Your task to perform on an android device: When is my next meeting? Image 0: 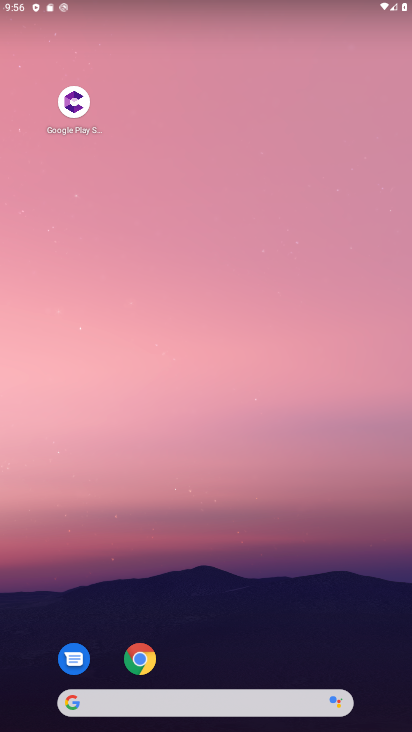
Step 0: drag from (276, 617) to (268, 278)
Your task to perform on an android device: When is my next meeting? Image 1: 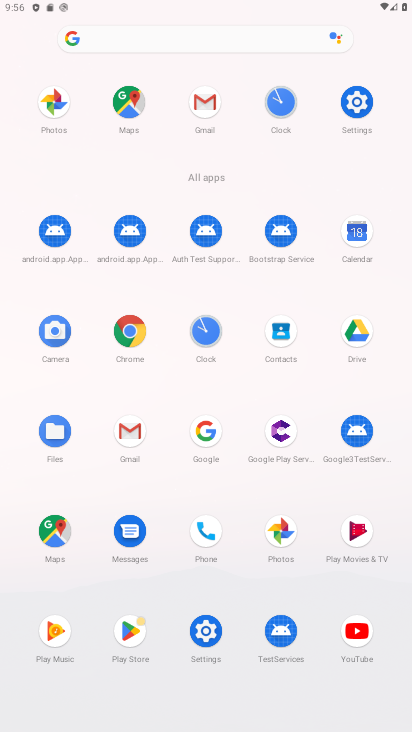
Step 1: click (359, 231)
Your task to perform on an android device: When is my next meeting? Image 2: 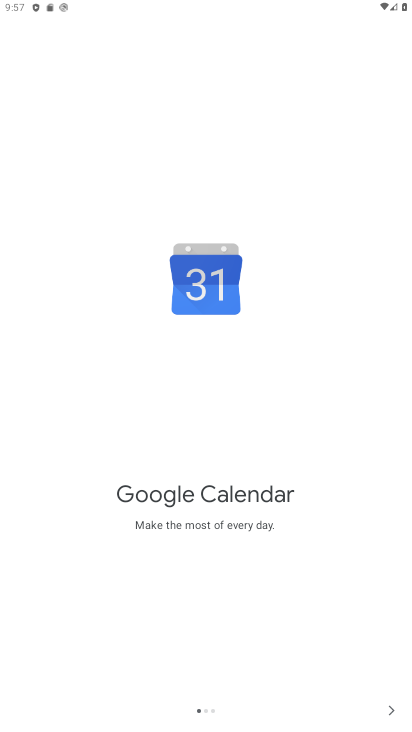
Step 2: click (359, 231)
Your task to perform on an android device: When is my next meeting? Image 3: 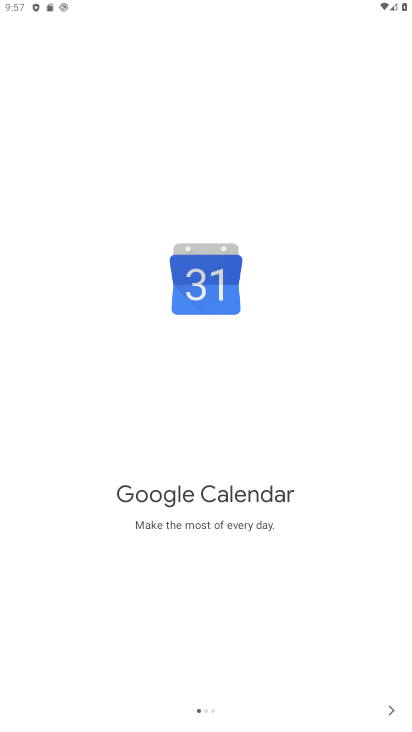
Step 3: click (389, 710)
Your task to perform on an android device: When is my next meeting? Image 4: 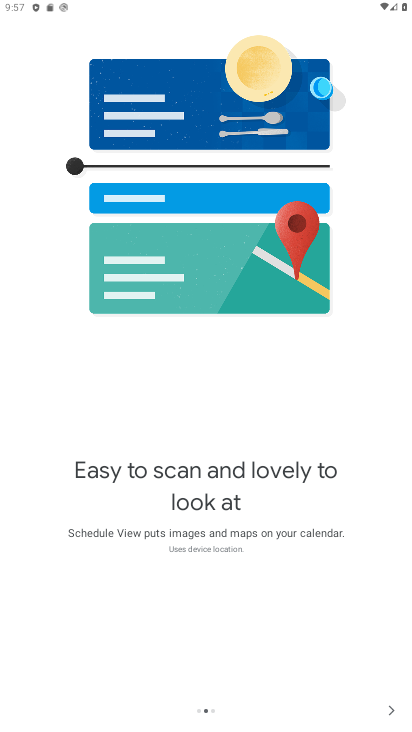
Step 4: click (390, 710)
Your task to perform on an android device: When is my next meeting? Image 5: 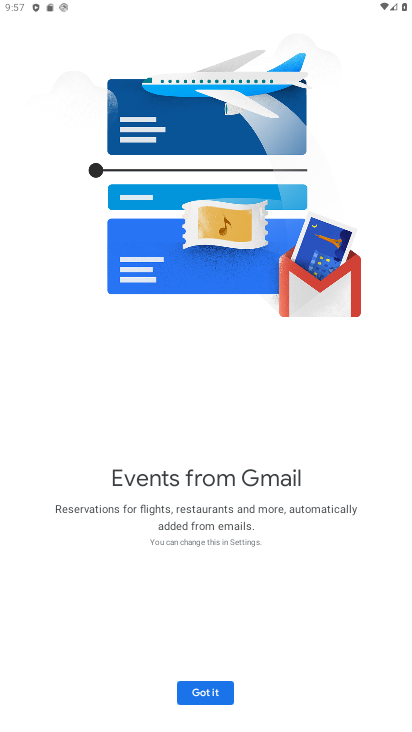
Step 5: click (390, 710)
Your task to perform on an android device: When is my next meeting? Image 6: 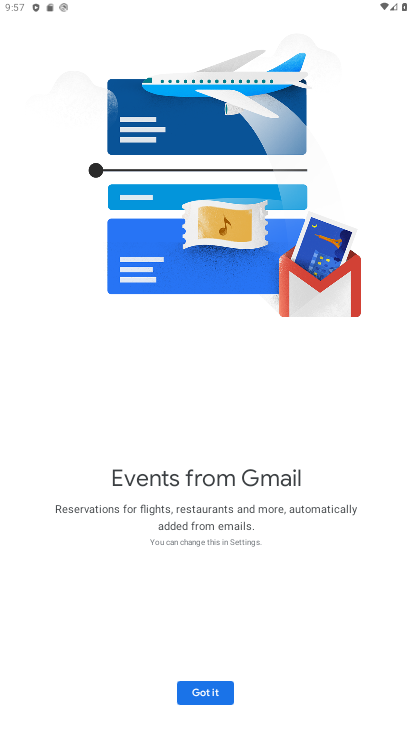
Step 6: click (197, 684)
Your task to perform on an android device: When is my next meeting? Image 7: 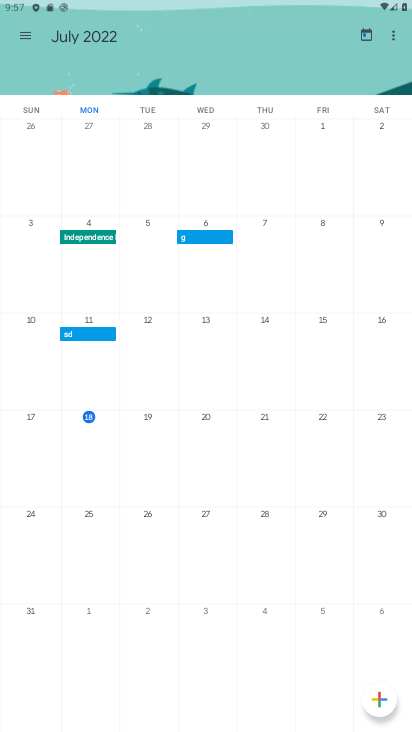
Step 7: task complete